Your task to perform on an android device: change text size in settings app Image 0: 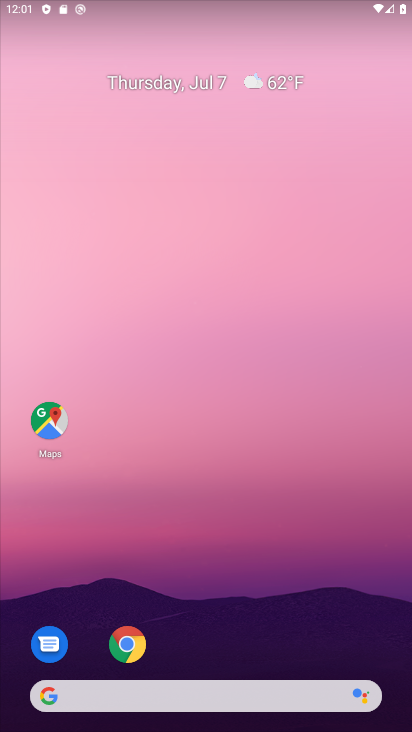
Step 0: drag from (25, 591) to (231, 178)
Your task to perform on an android device: change text size in settings app Image 1: 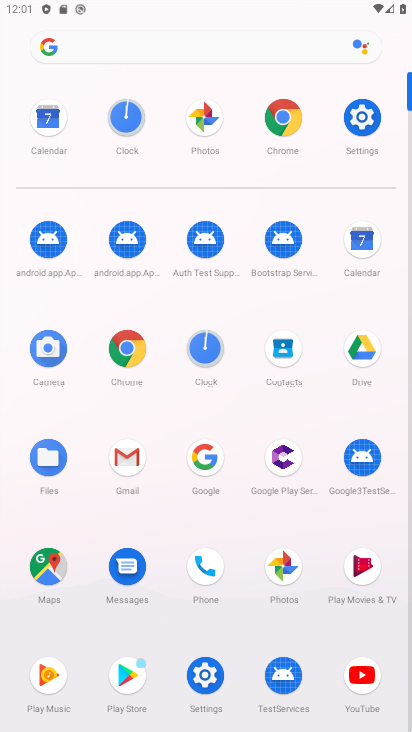
Step 1: click (352, 126)
Your task to perform on an android device: change text size in settings app Image 2: 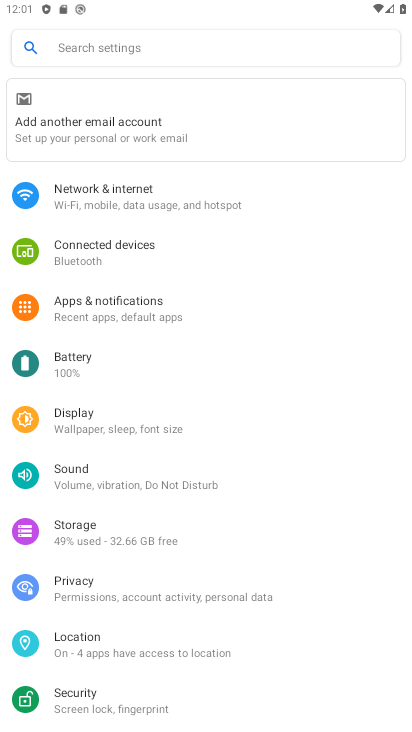
Step 2: drag from (23, 702) to (103, 555)
Your task to perform on an android device: change text size in settings app Image 3: 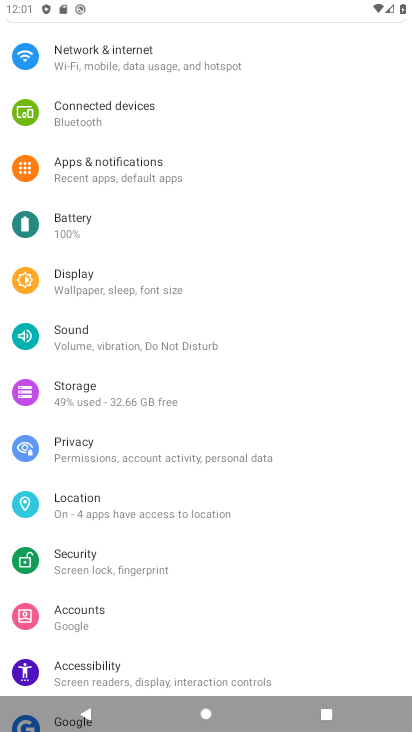
Step 3: click (159, 285)
Your task to perform on an android device: change text size in settings app Image 4: 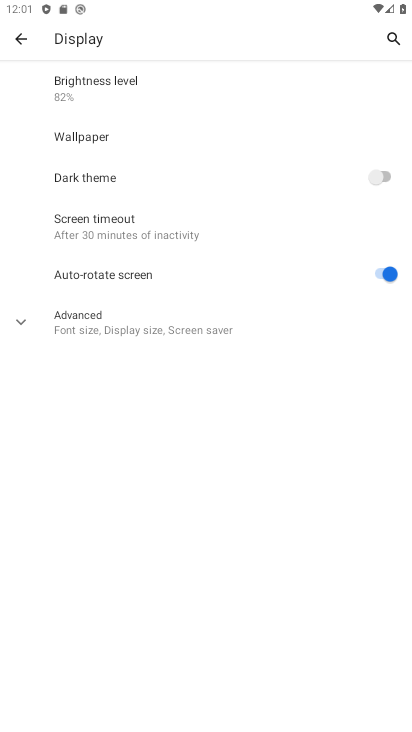
Step 4: click (159, 337)
Your task to perform on an android device: change text size in settings app Image 5: 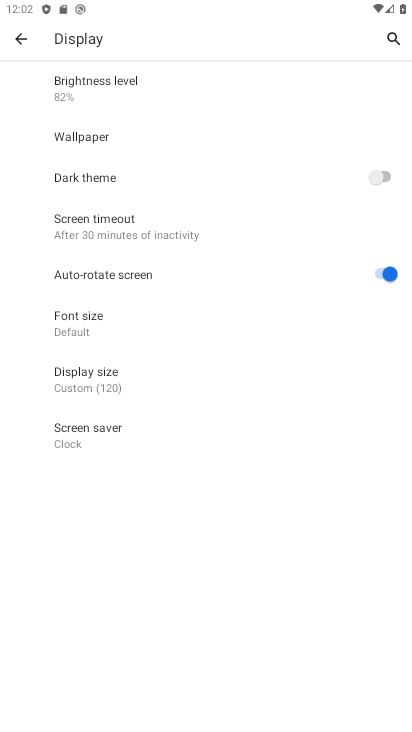
Step 5: click (164, 327)
Your task to perform on an android device: change text size in settings app Image 6: 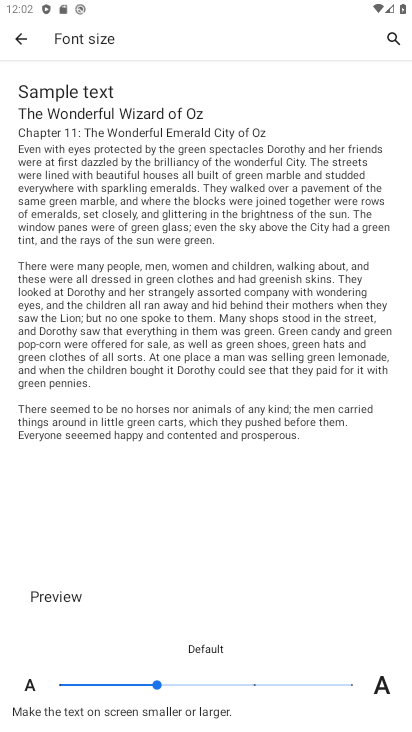
Step 6: click (252, 682)
Your task to perform on an android device: change text size in settings app Image 7: 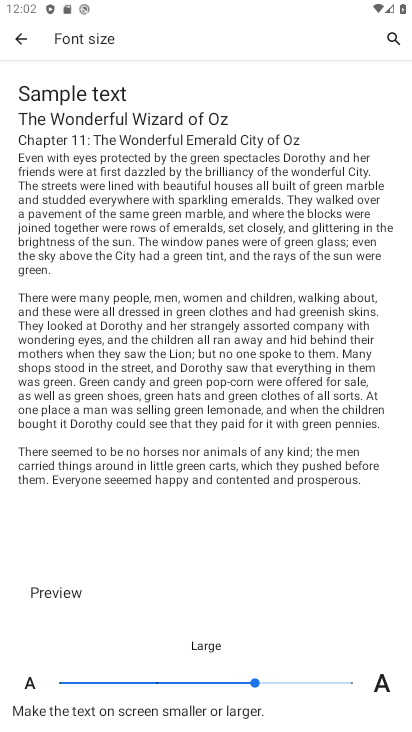
Step 7: task complete